Your task to perform on an android device: turn on showing notifications on the lock screen Image 0: 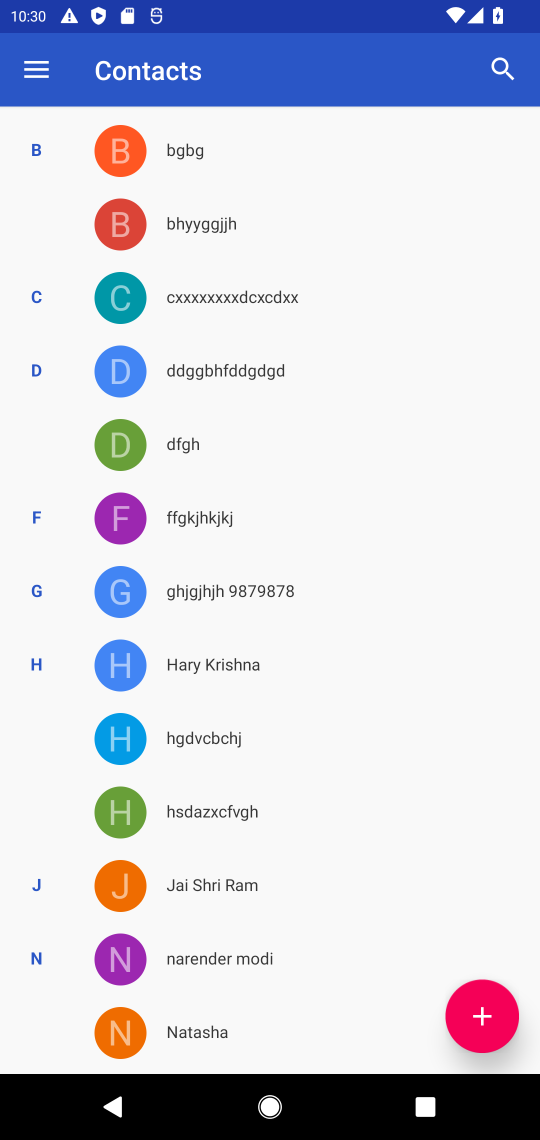
Step 0: press home button
Your task to perform on an android device: turn on showing notifications on the lock screen Image 1: 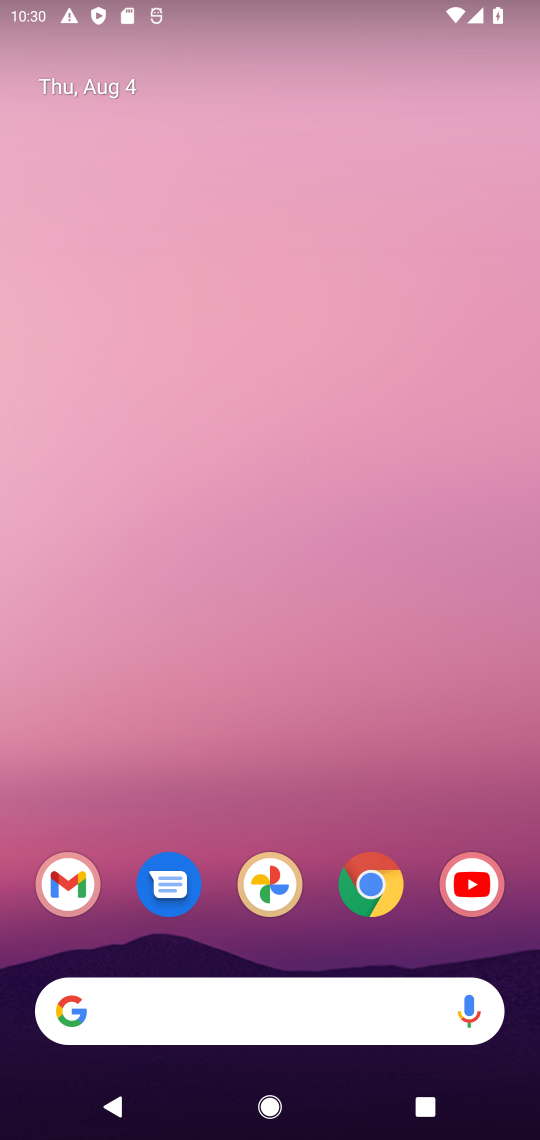
Step 1: drag from (238, 1000) to (387, 27)
Your task to perform on an android device: turn on showing notifications on the lock screen Image 2: 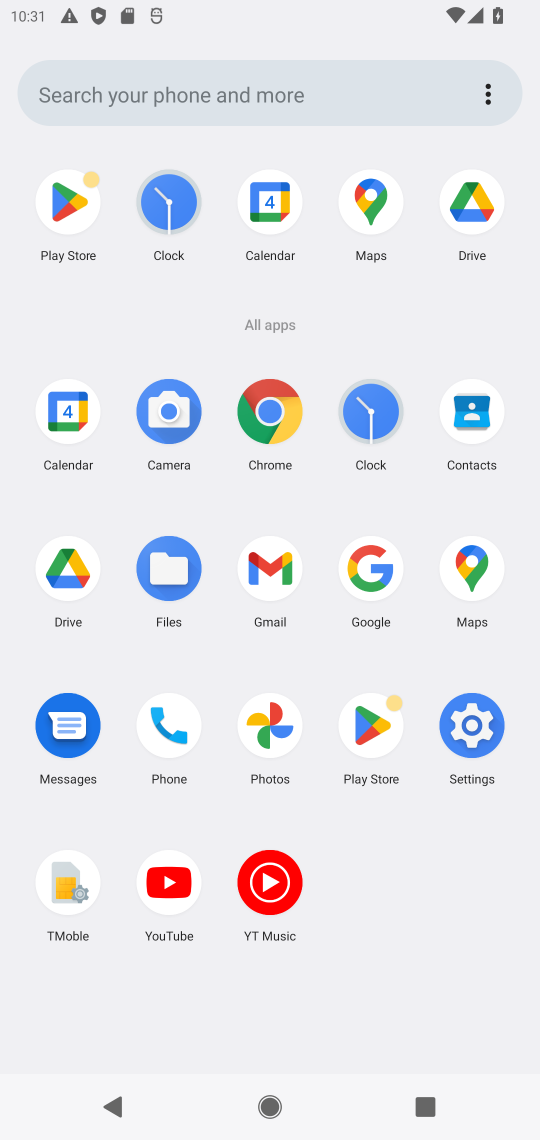
Step 2: click (497, 745)
Your task to perform on an android device: turn on showing notifications on the lock screen Image 3: 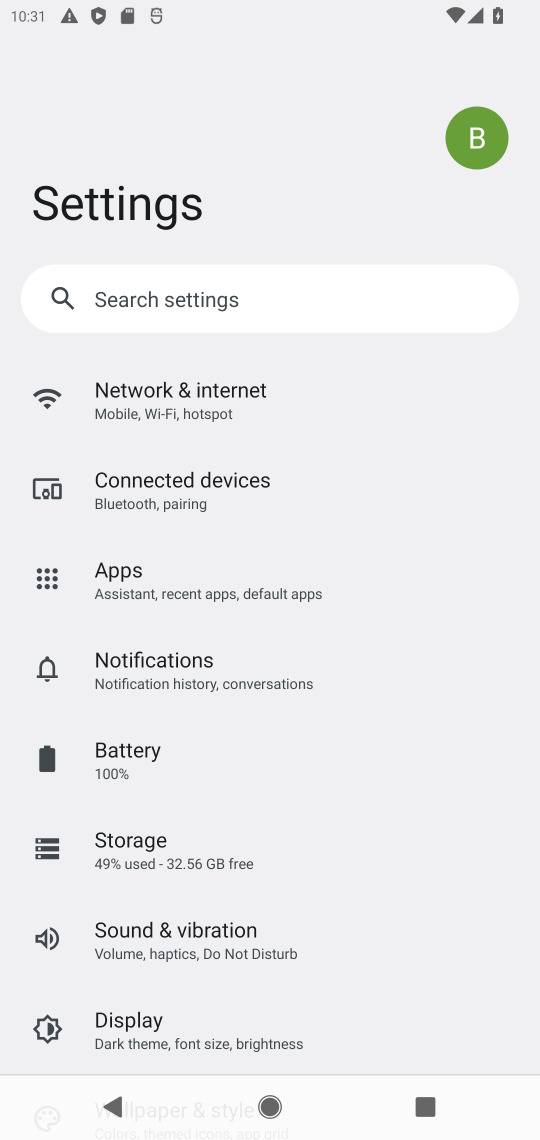
Step 3: click (190, 659)
Your task to perform on an android device: turn on showing notifications on the lock screen Image 4: 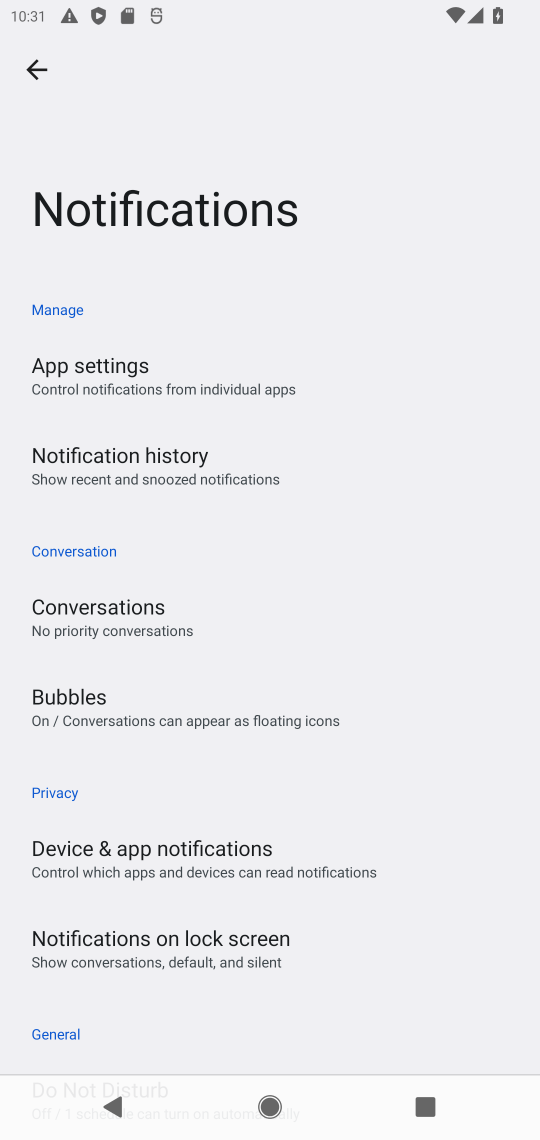
Step 4: click (227, 953)
Your task to perform on an android device: turn on showing notifications on the lock screen Image 5: 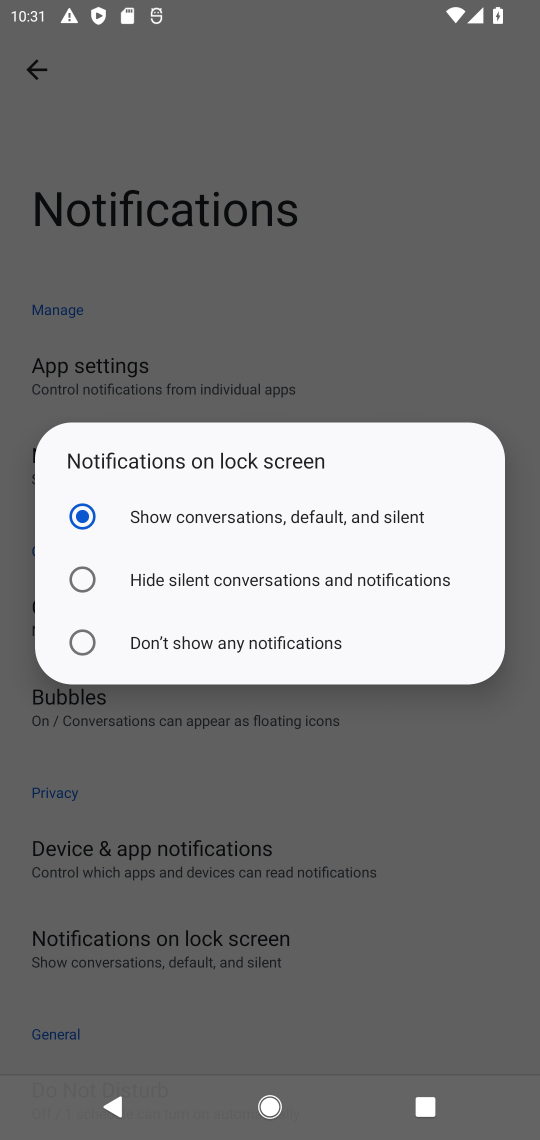
Step 5: click (262, 512)
Your task to perform on an android device: turn on showing notifications on the lock screen Image 6: 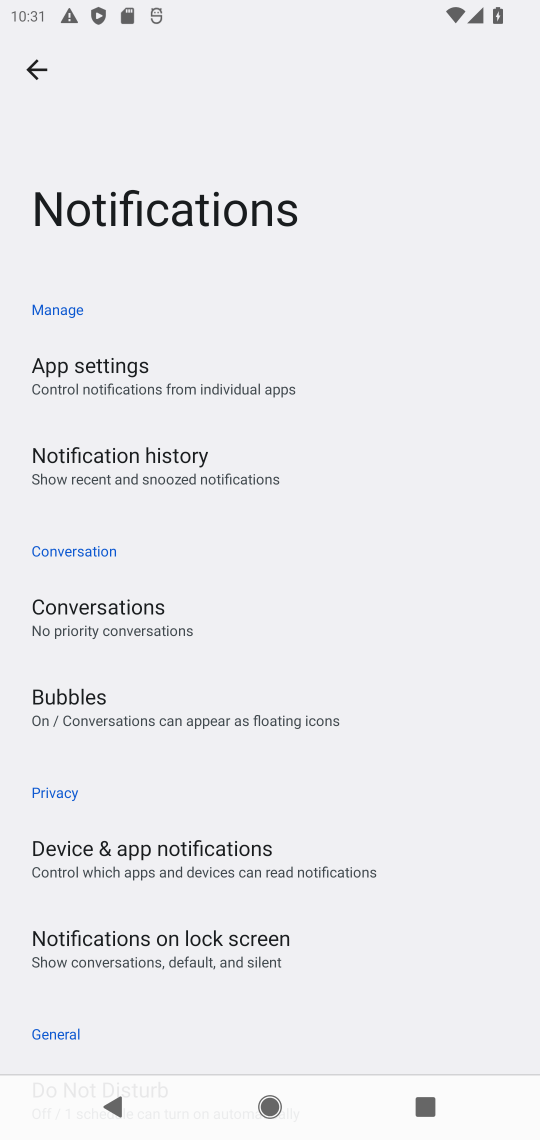
Step 6: task complete